Your task to perform on an android device: install app "Pluto TV - Live TV and Movies" Image 0: 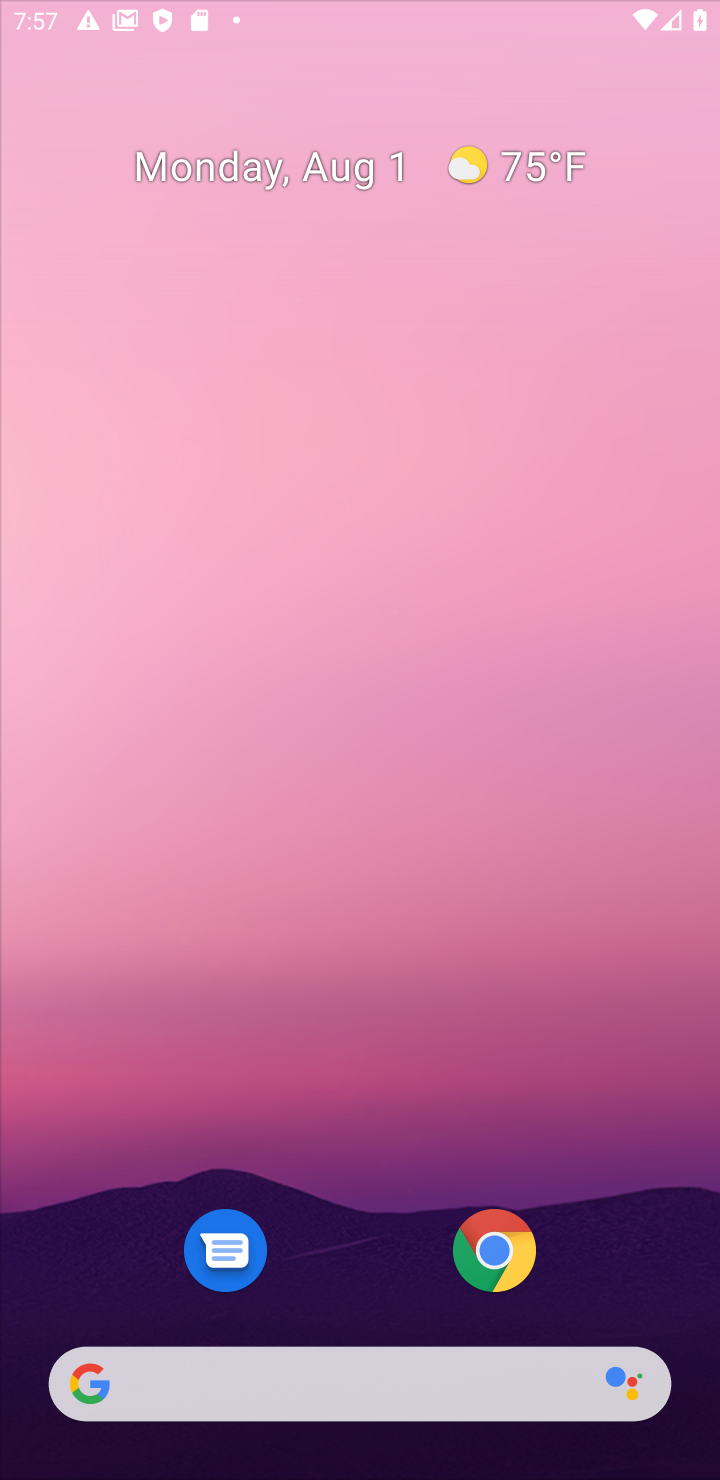
Step 0: press home button
Your task to perform on an android device: install app "Pluto TV - Live TV and Movies" Image 1: 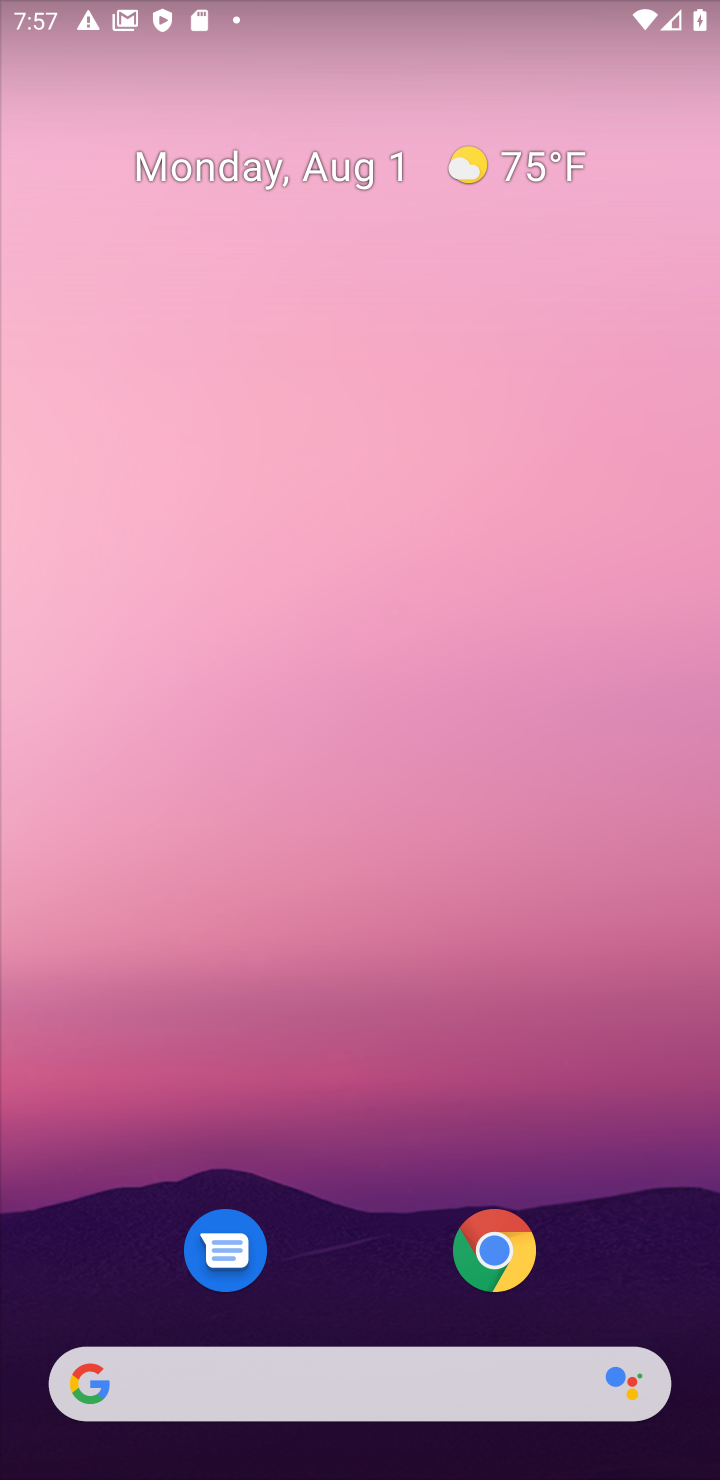
Step 1: press home button
Your task to perform on an android device: install app "Pluto TV - Live TV and Movies" Image 2: 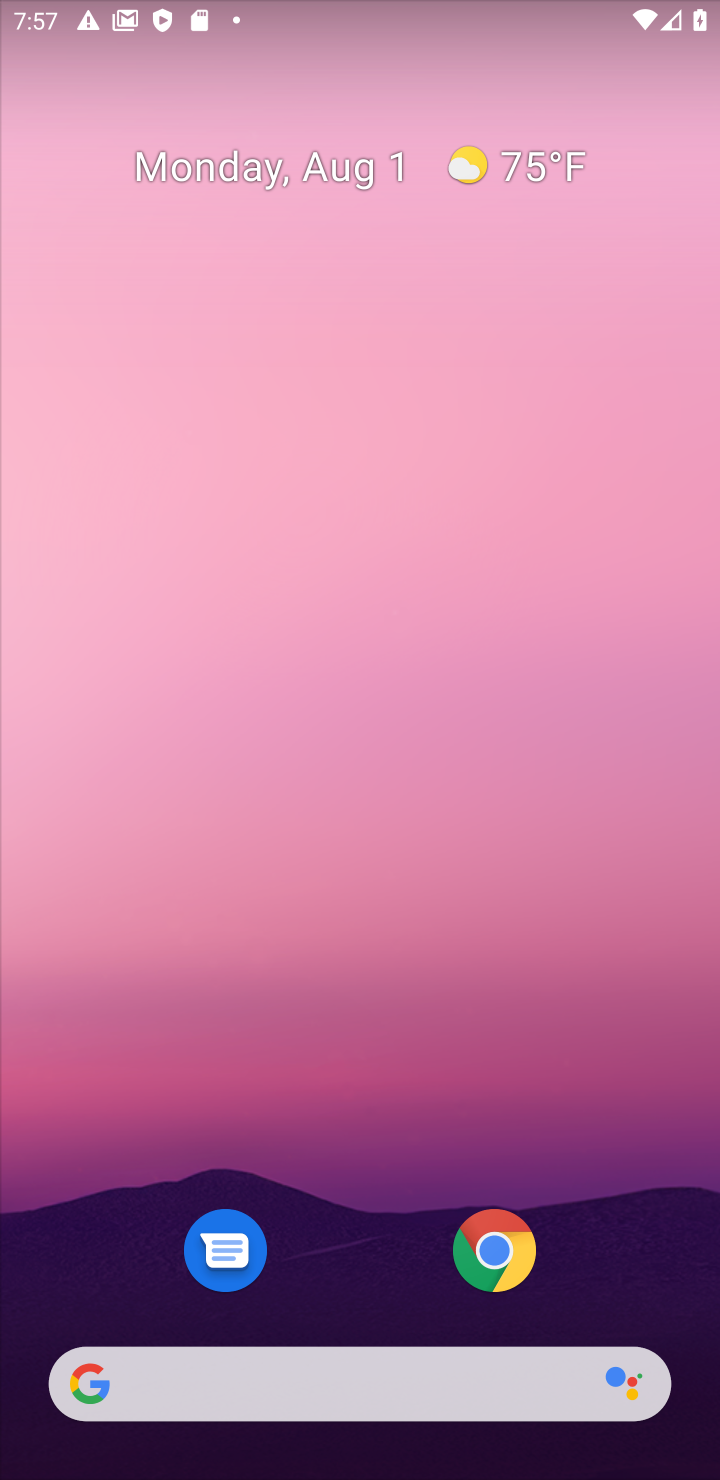
Step 2: drag from (462, 1020) to (318, 260)
Your task to perform on an android device: install app "Pluto TV - Live TV and Movies" Image 3: 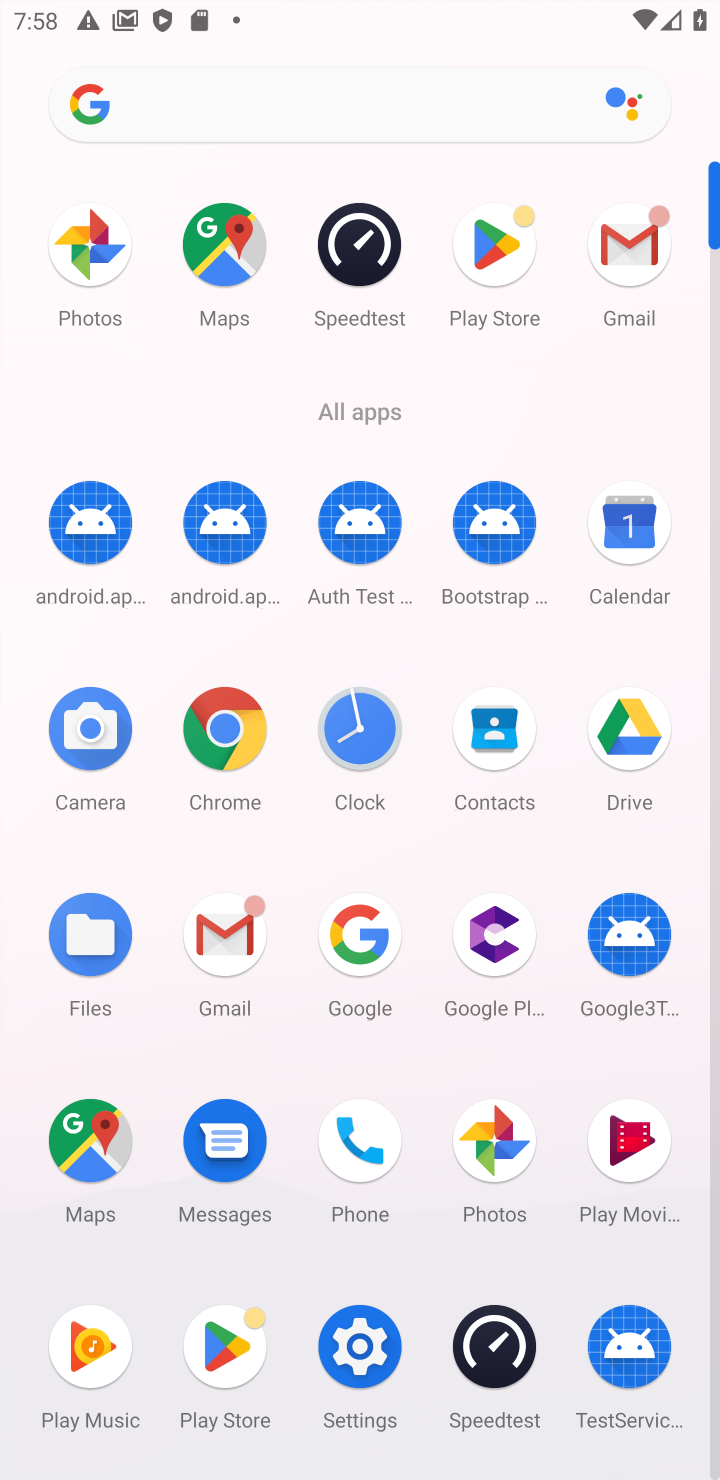
Step 3: click (236, 1325)
Your task to perform on an android device: install app "Pluto TV - Live TV and Movies" Image 4: 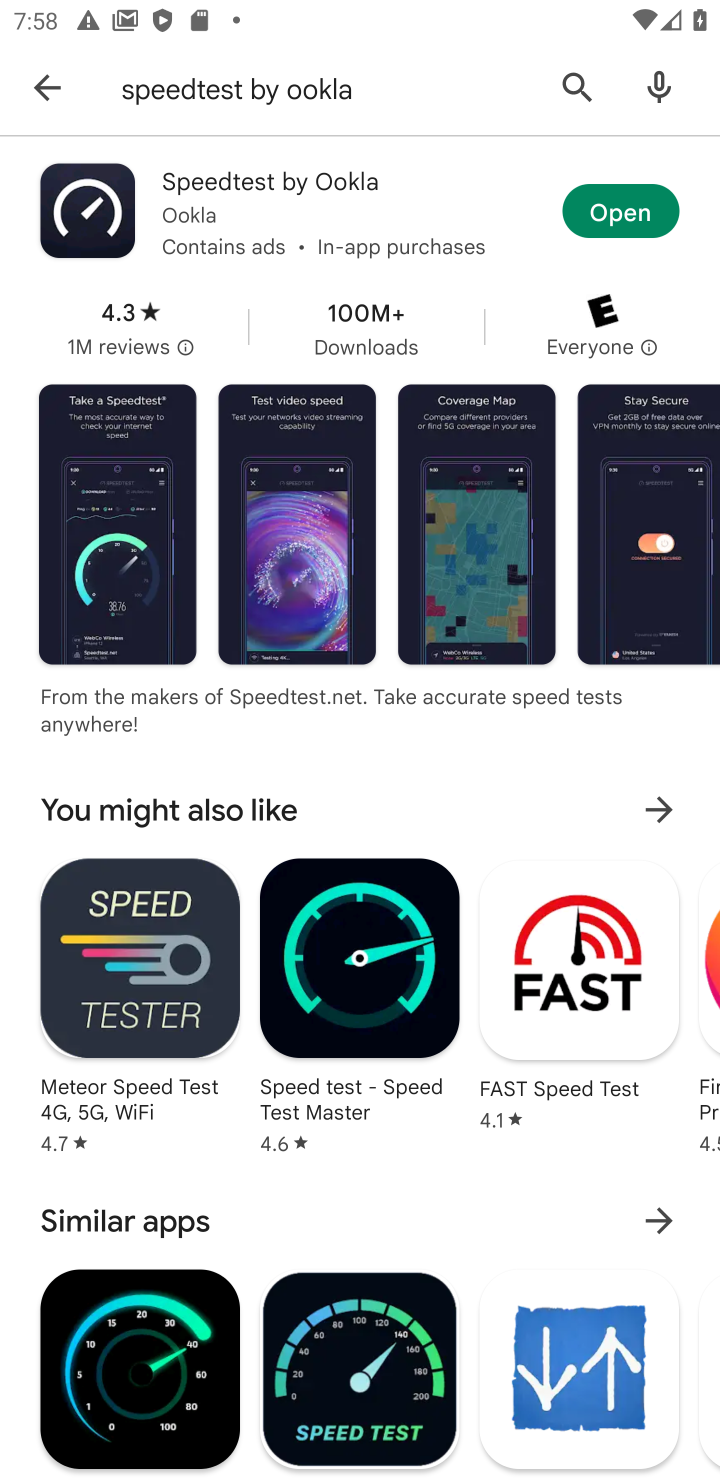
Step 4: click (574, 97)
Your task to perform on an android device: install app "Pluto TV - Live TV and Movies" Image 5: 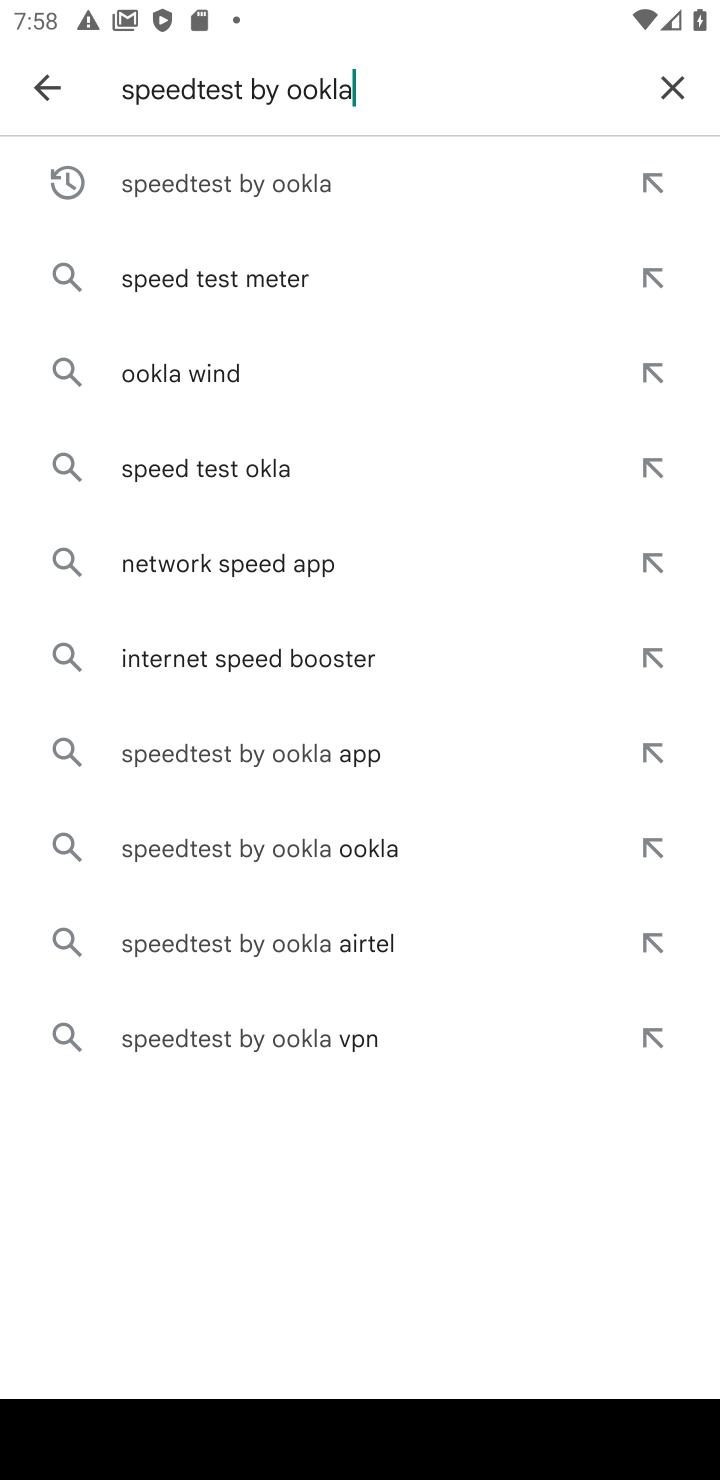
Step 5: click (662, 73)
Your task to perform on an android device: install app "Pluto TV - Live TV and Movies" Image 6: 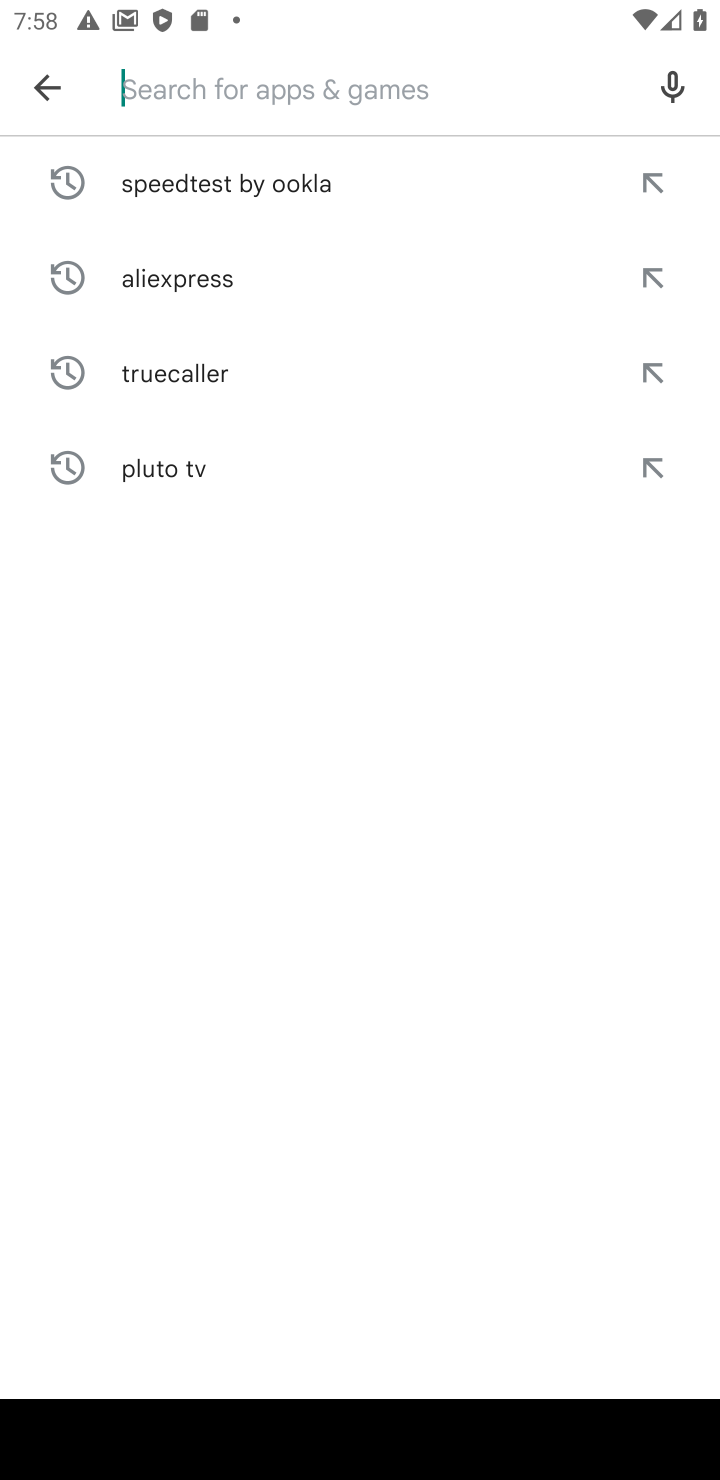
Step 6: type "pluto tv - live tv and movies"
Your task to perform on an android device: install app "Pluto TV - Live TV and Movies" Image 7: 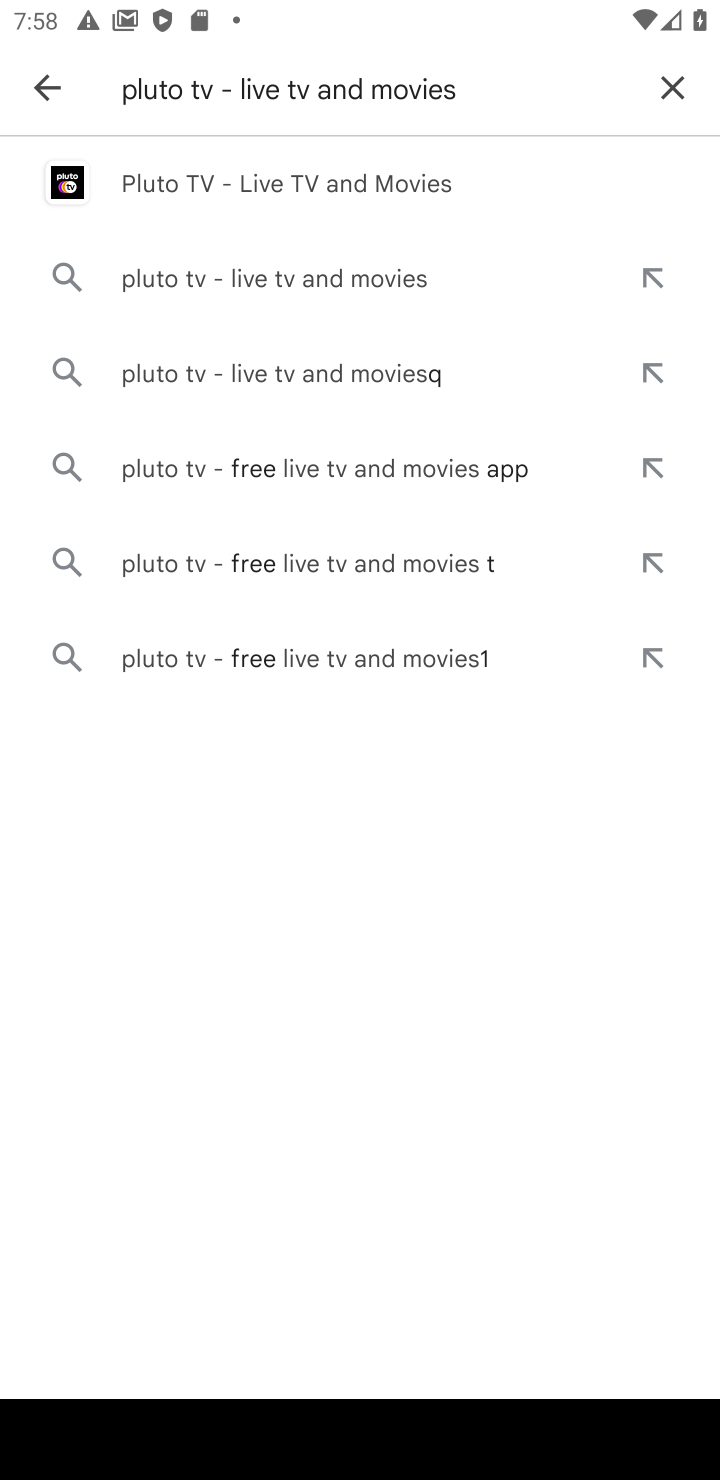
Step 7: click (416, 172)
Your task to perform on an android device: install app "Pluto TV - Live TV and Movies" Image 8: 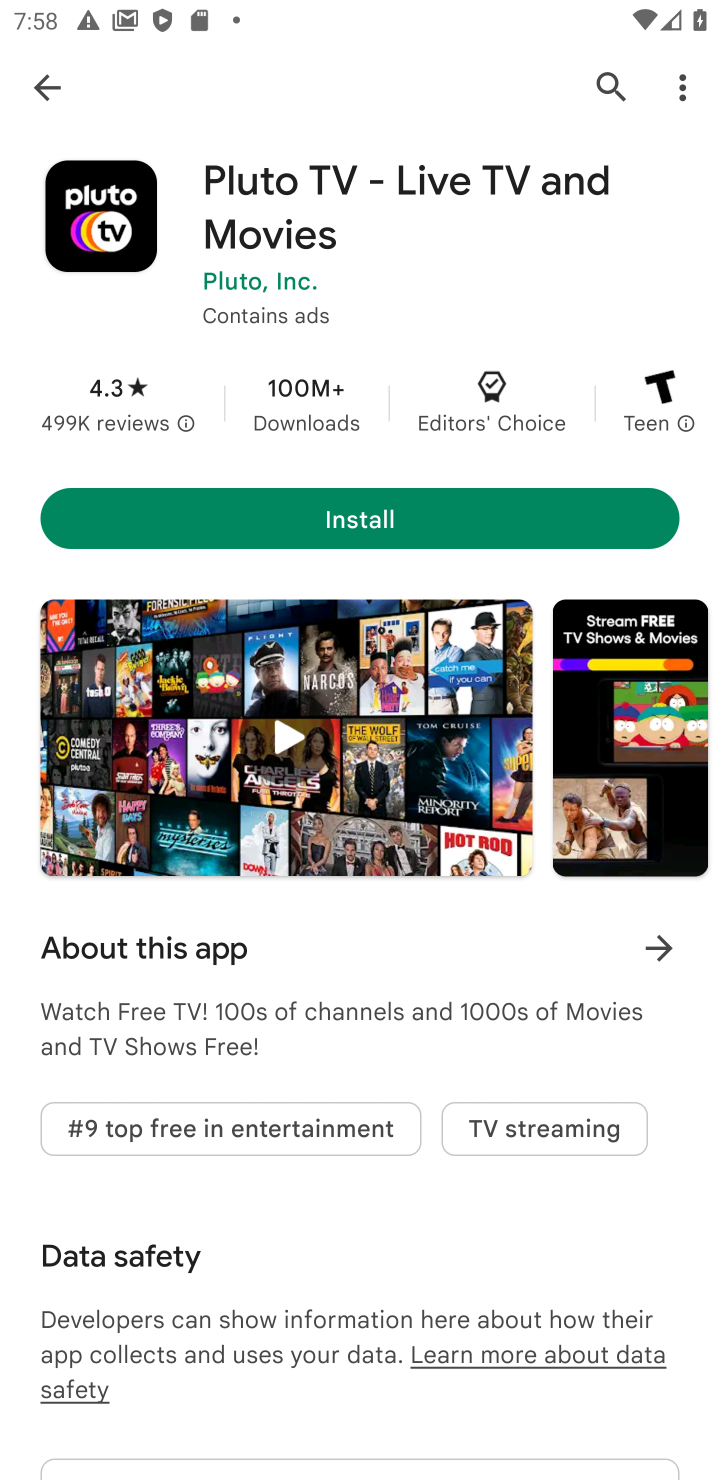
Step 8: click (483, 541)
Your task to perform on an android device: install app "Pluto TV - Live TV and Movies" Image 9: 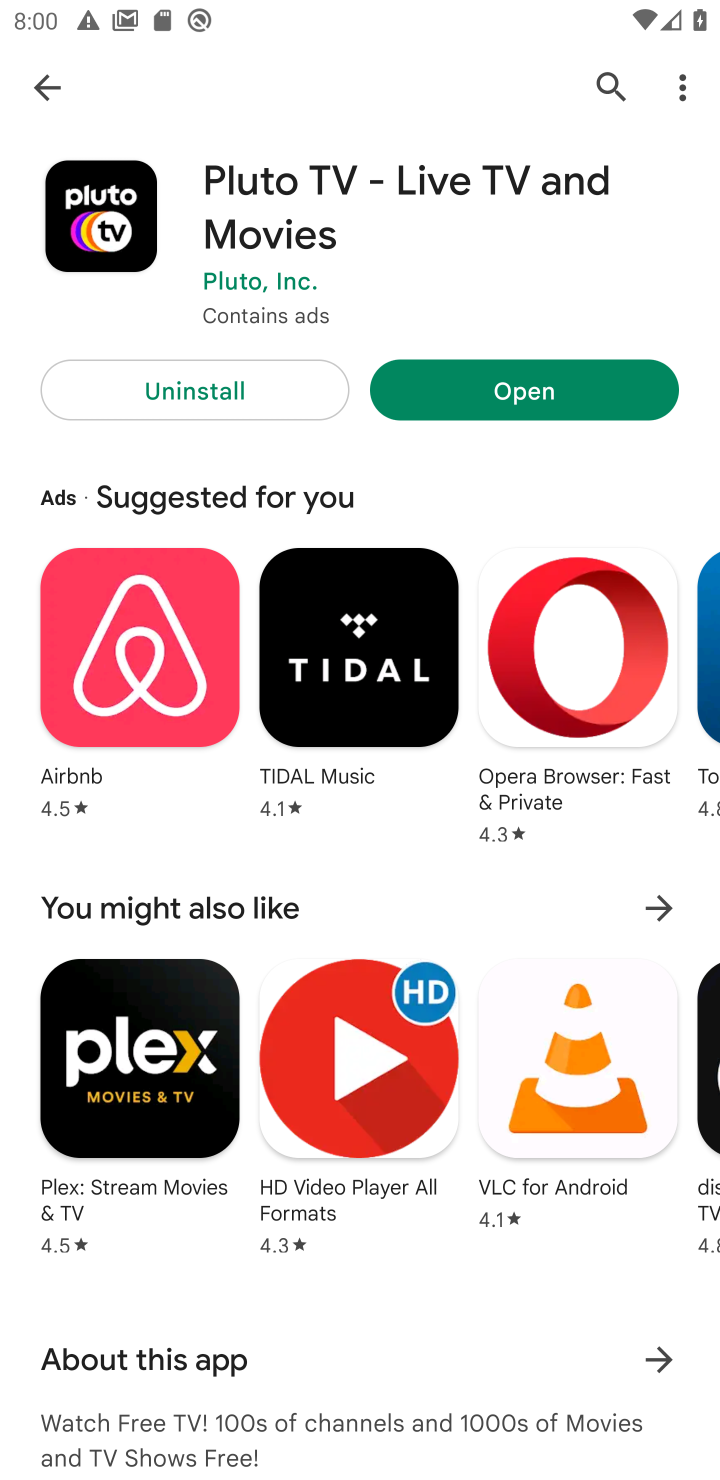
Step 9: task complete